Your task to perform on an android device: delete location history Image 0: 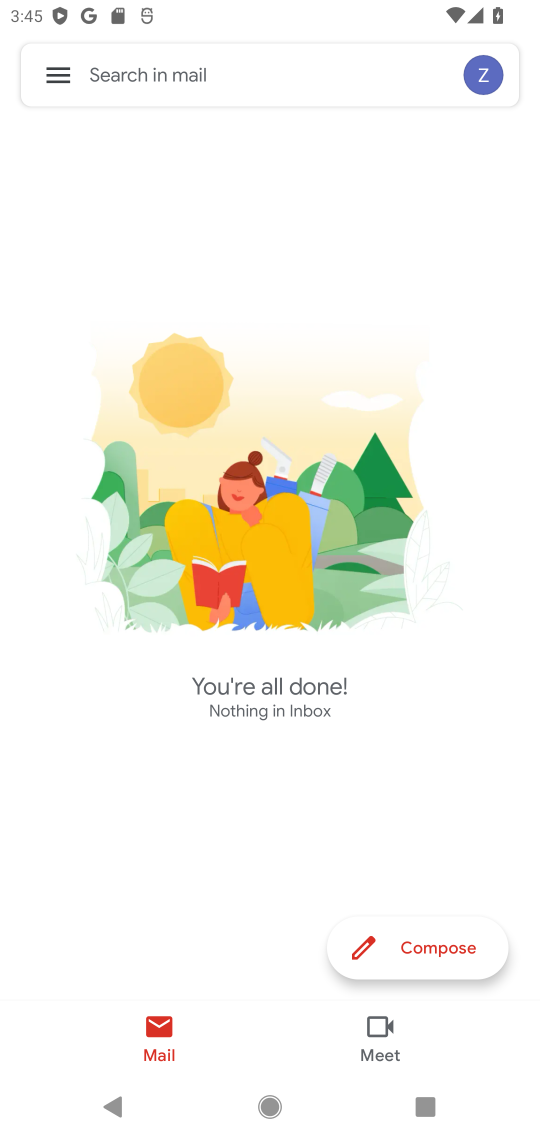
Step 0: drag from (235, 931) to (369, 465)
Your task to perform on an android device: delete location history Image 1: 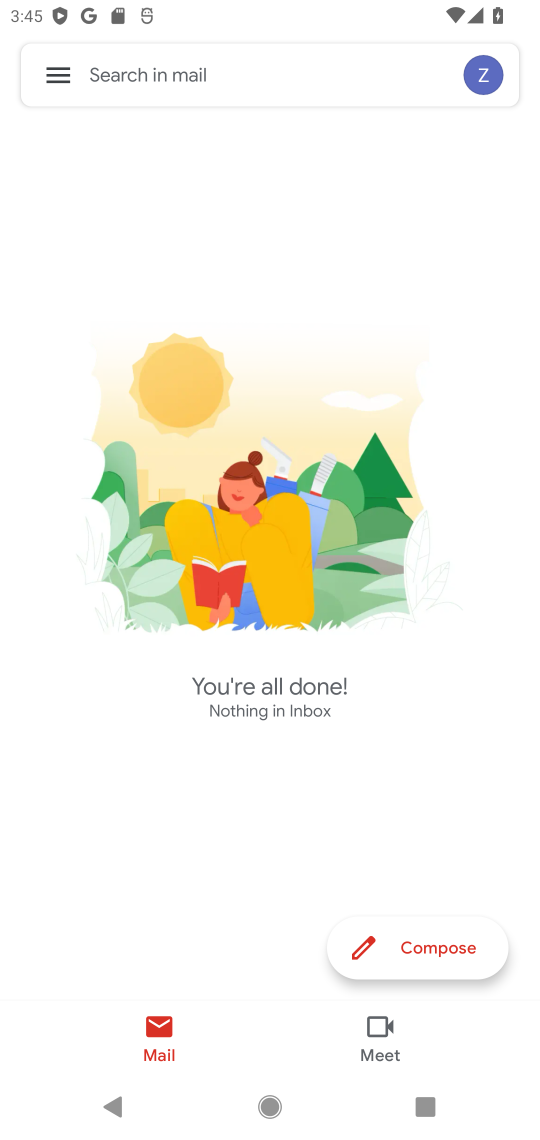
Step 1: press home button
Your task to perform on an android device: delete location history Image 2: 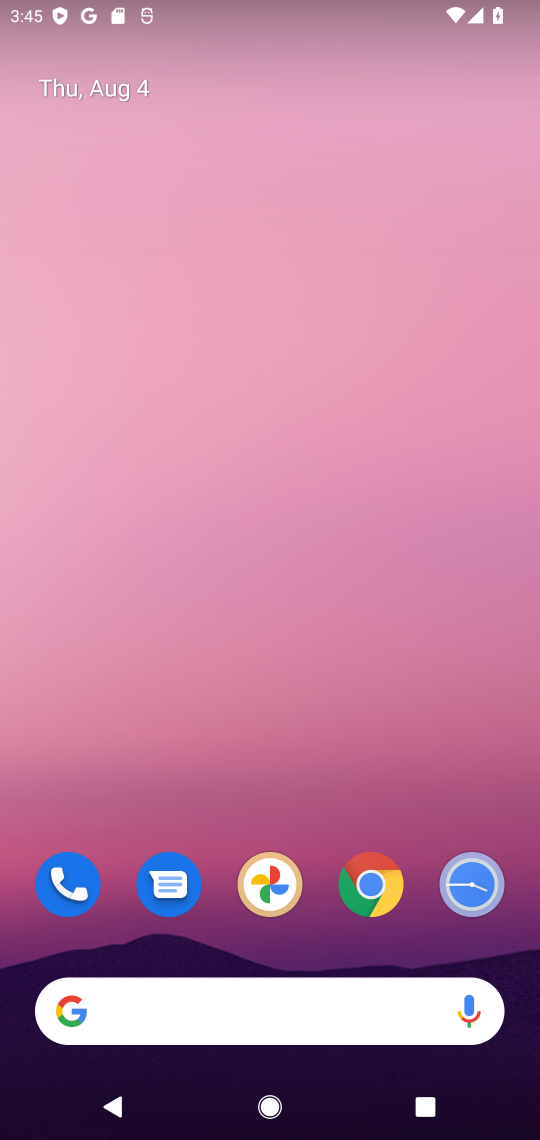
Step 2: drag from (217, 882) to (411, 449)
Your task to perform on an android device: delete location history Image 3: 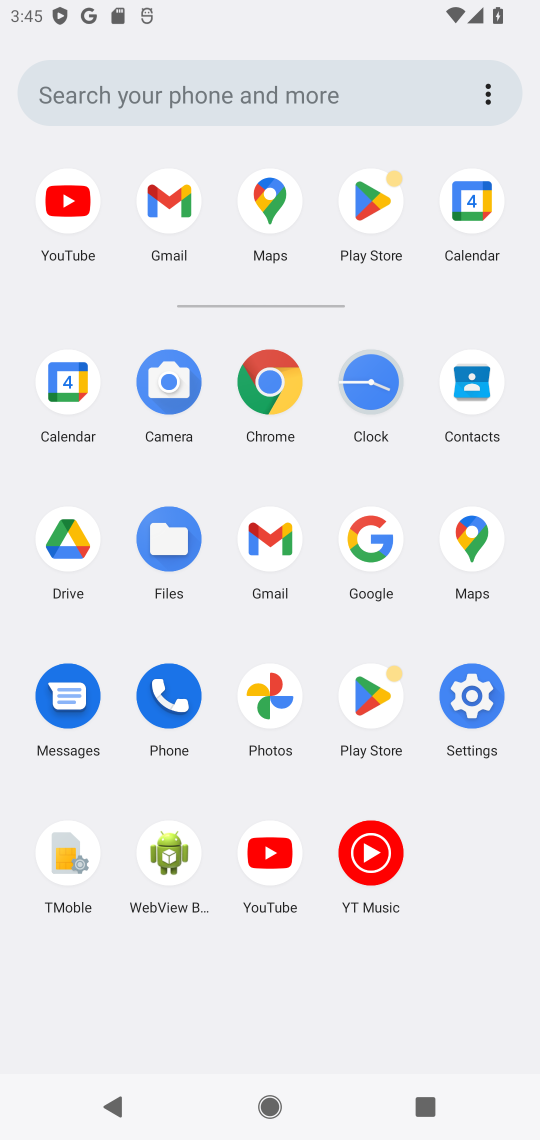
Step 3: click (474, 694)
Your task to perform on an android device: delete location history Image 4: 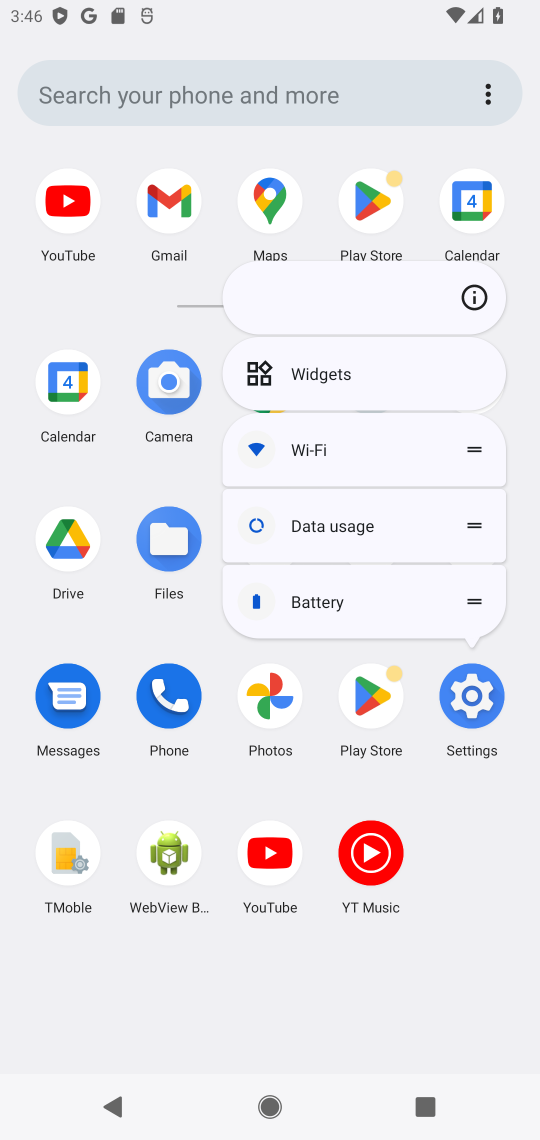
Step 4: click (459, 298)
Your task to perform on an android device: delete location history Image 5: 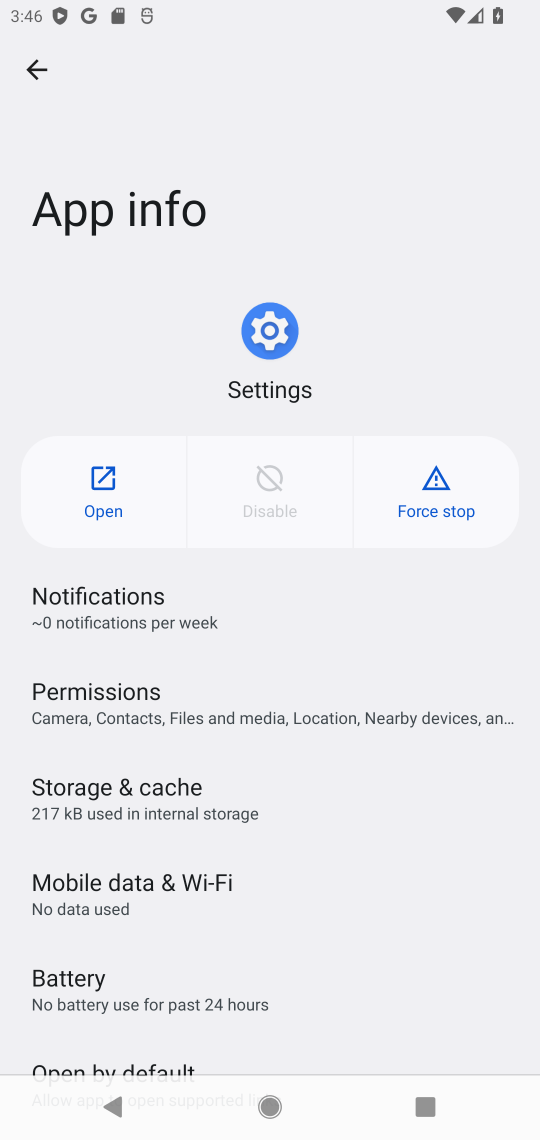
Step 5: click (109, 499)
Your task to perform on an android device: delete location history Image 6: 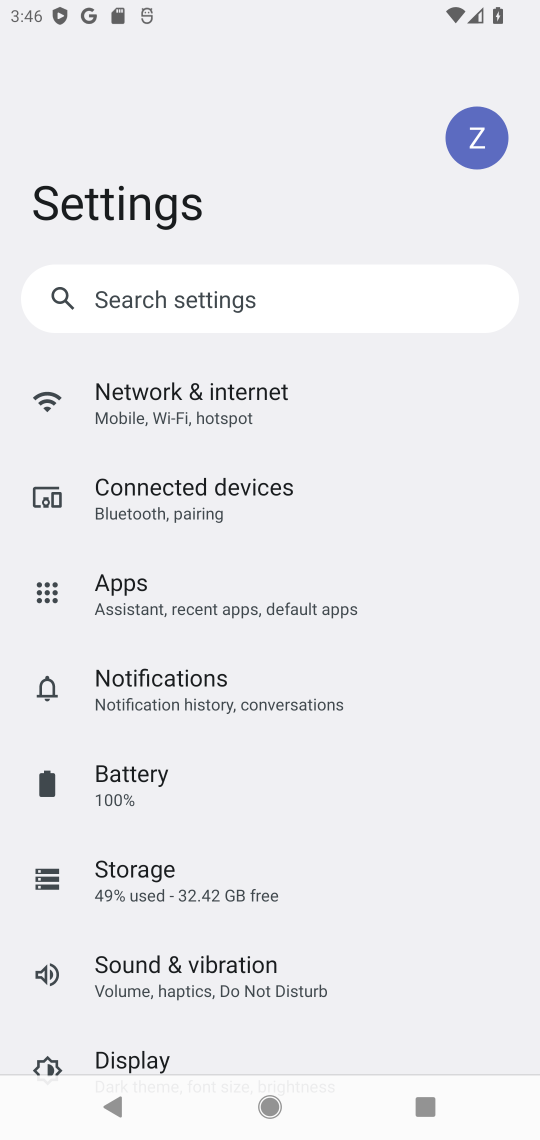
Step 6: drag from (229, 856) to (466, 37)
Your task to perform on an android device: delete location history Image 7: 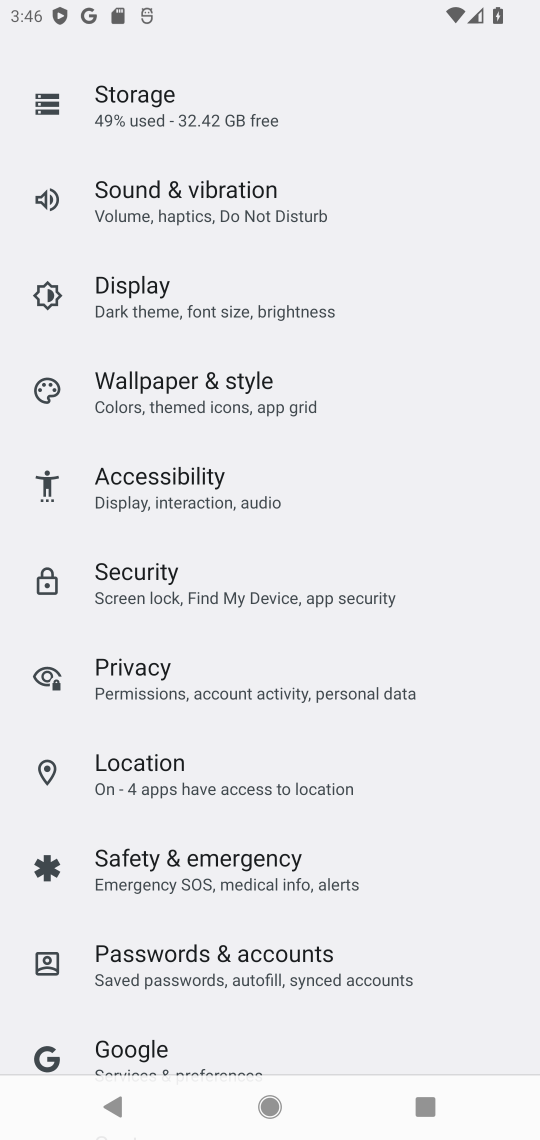
Step 7: click (191, 763)
Your task to perform on an android device: delete location history Image 8: 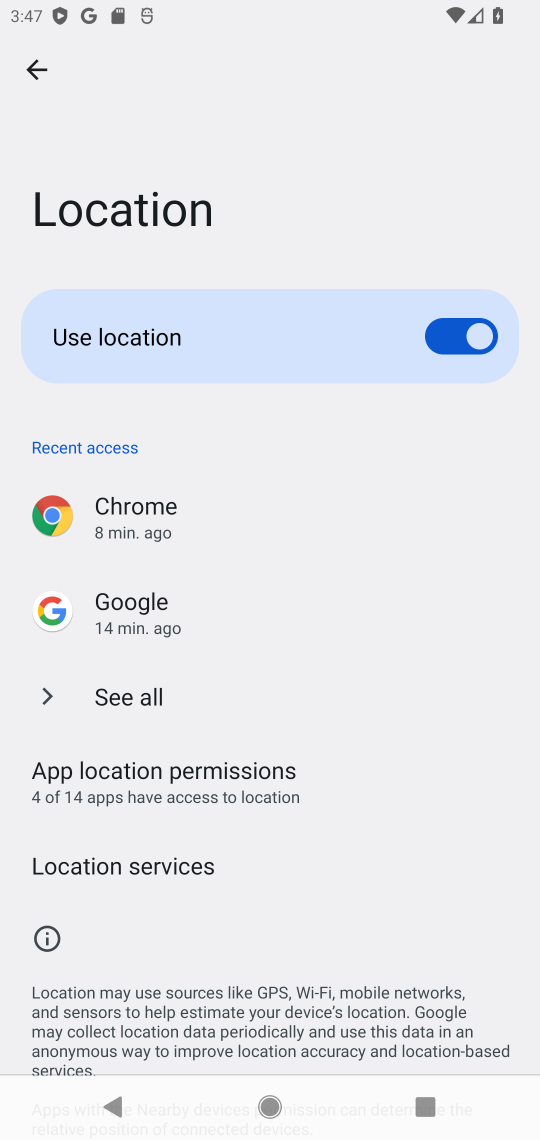
Step 8: drag from (253, 924) to (292, 481)
Your task to perform on an android device: delete location history Image 9: 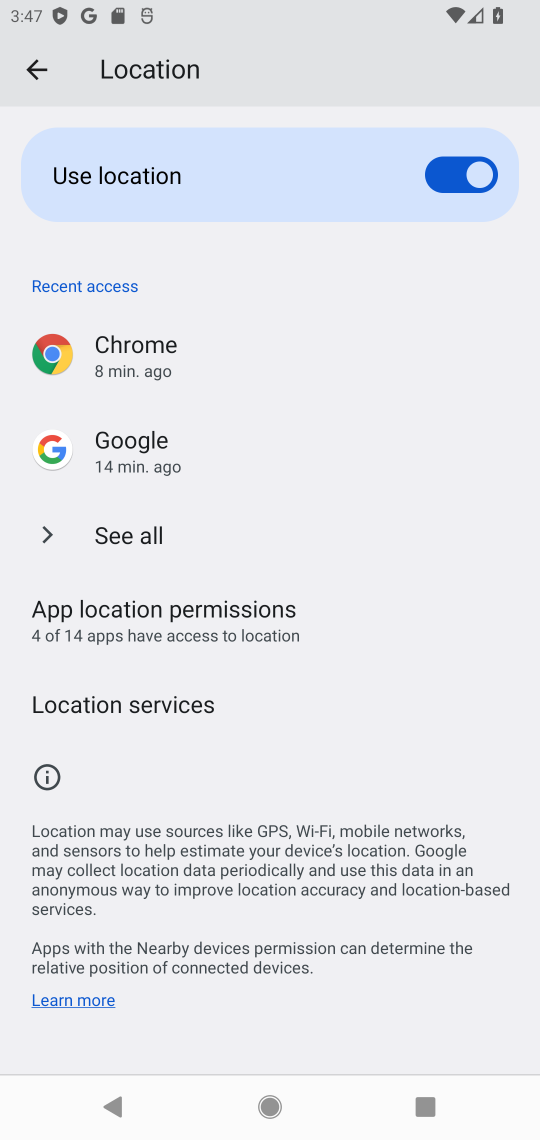
Step 9: click (149, 704)
Your task to perform on an android device: delete location history Image 10: 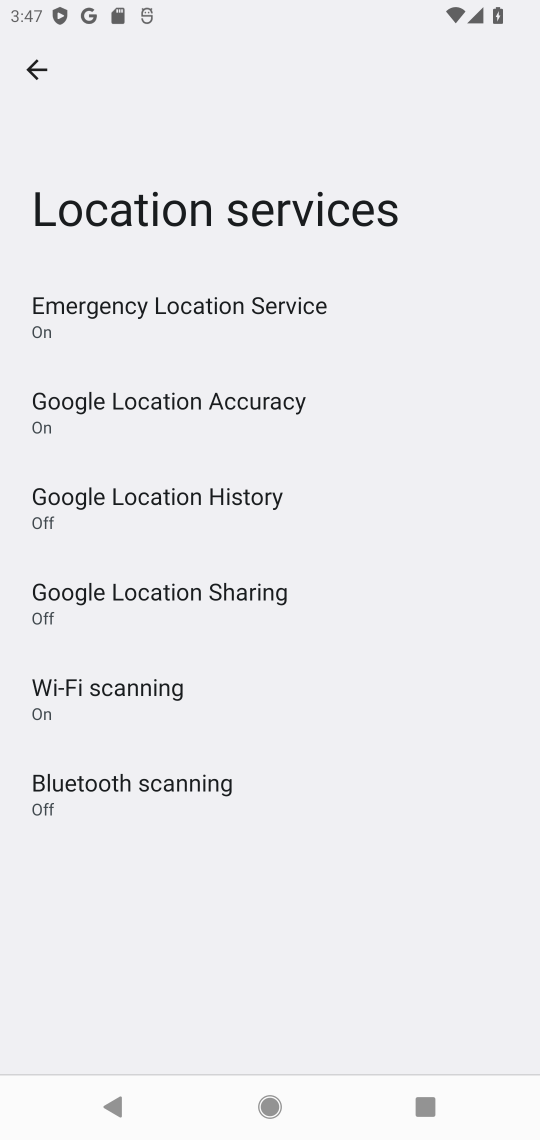
Step 10: click (277, 505)
Your task to perform on an android device: delete location history Image 11: 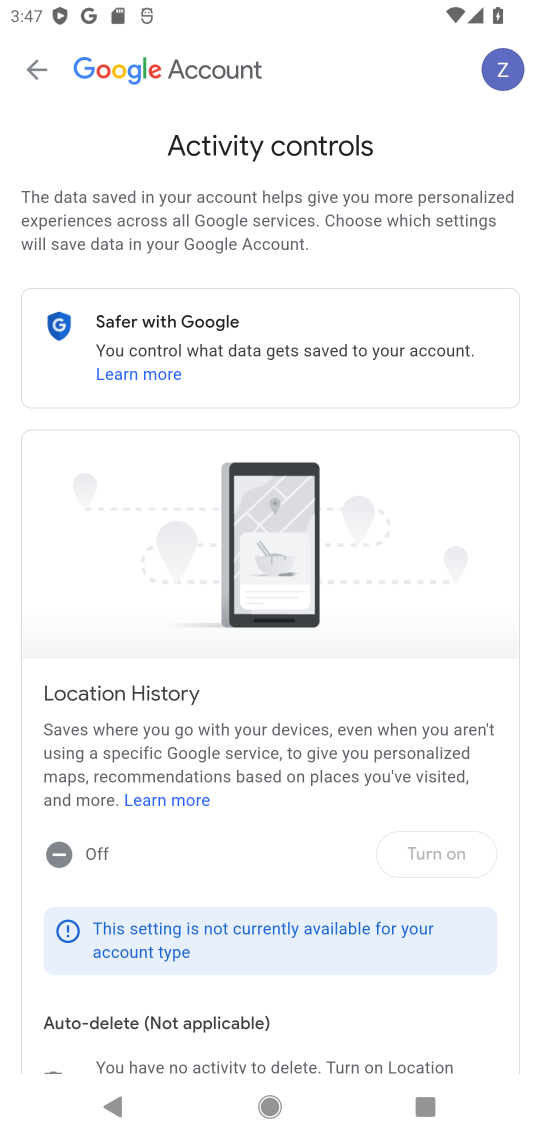
Step 11: click (490, 823)
Your task to perform on an android device: delete location history Image 12: 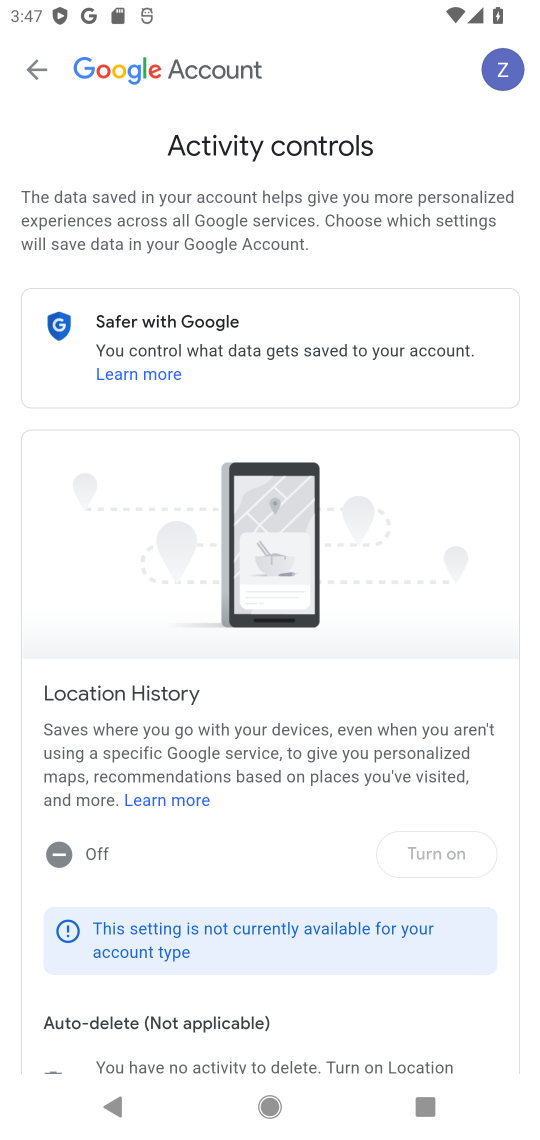
Step 12: drag from (308, 773) to (413, 390)
Your task to perform on an android device: delete location history Image 13: 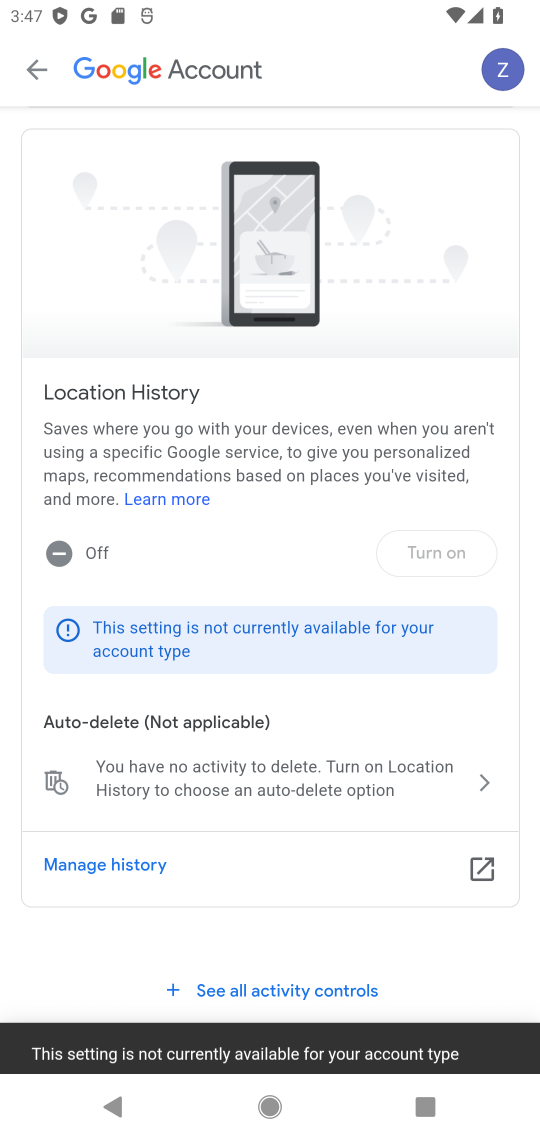
Step 13: click (49, 808)
Your task to perform on an android device: delete location history Image 14: 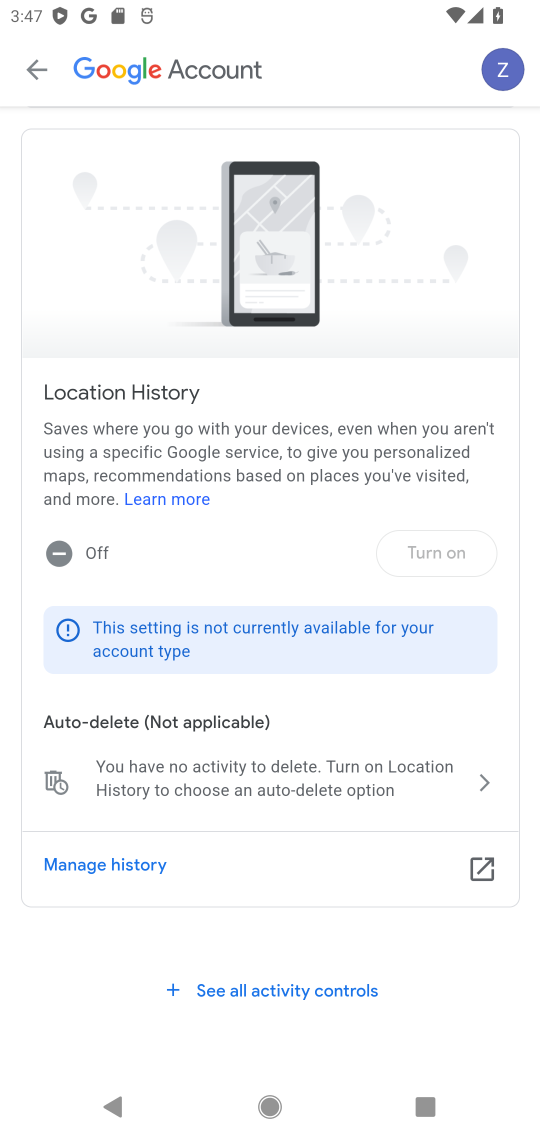
Step 14: click (58, 777)
Your task to perform on an android device: delete location history Image 15: 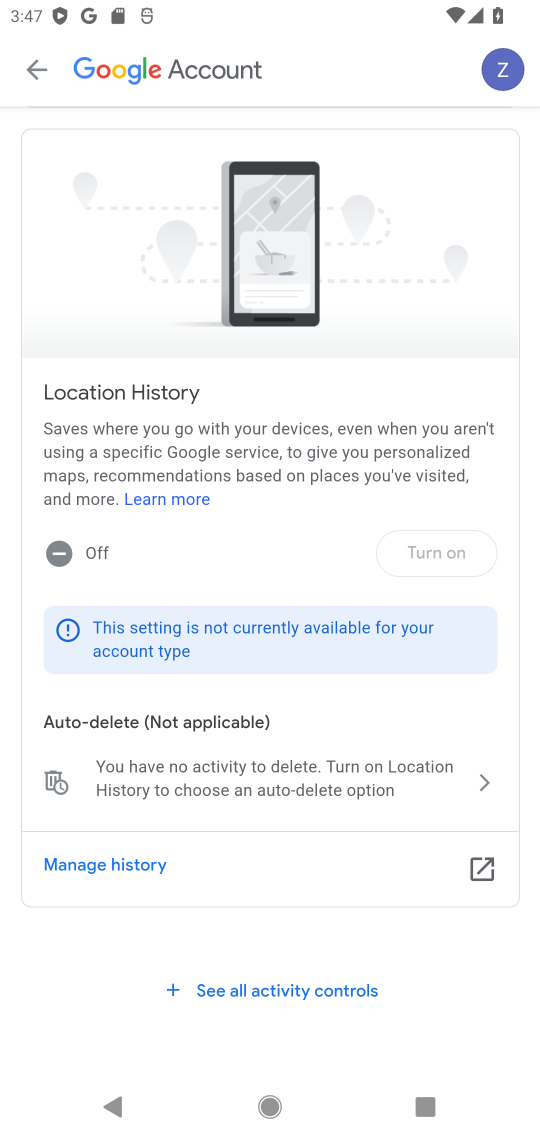
Step 15: click (58, 777)
Your task to perform on an android device: delete location history Image 16: 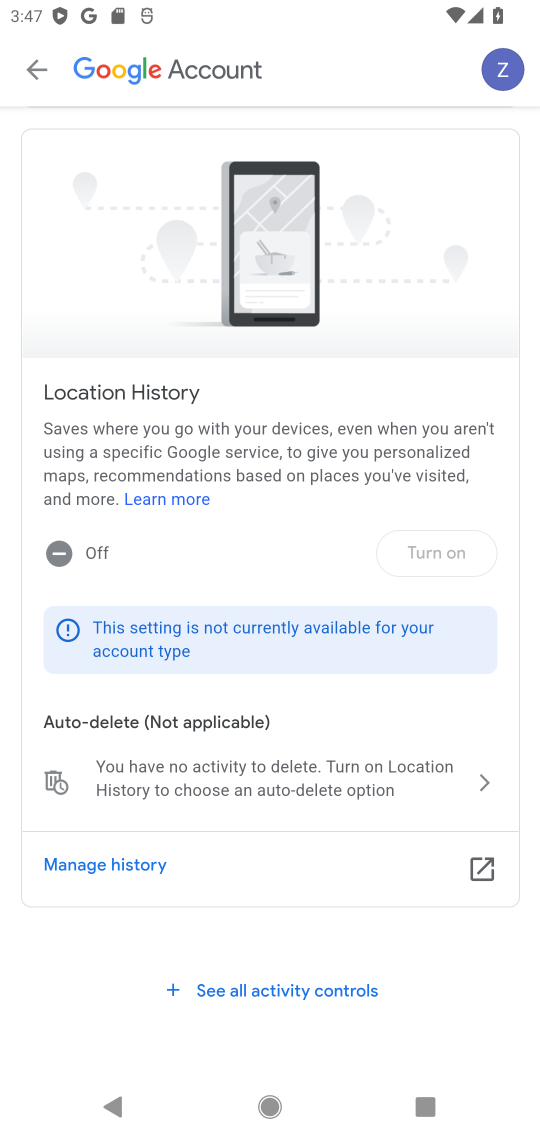
Step 16: click (232, 779)
Your task to perform on an android device: delete location history Image 17: 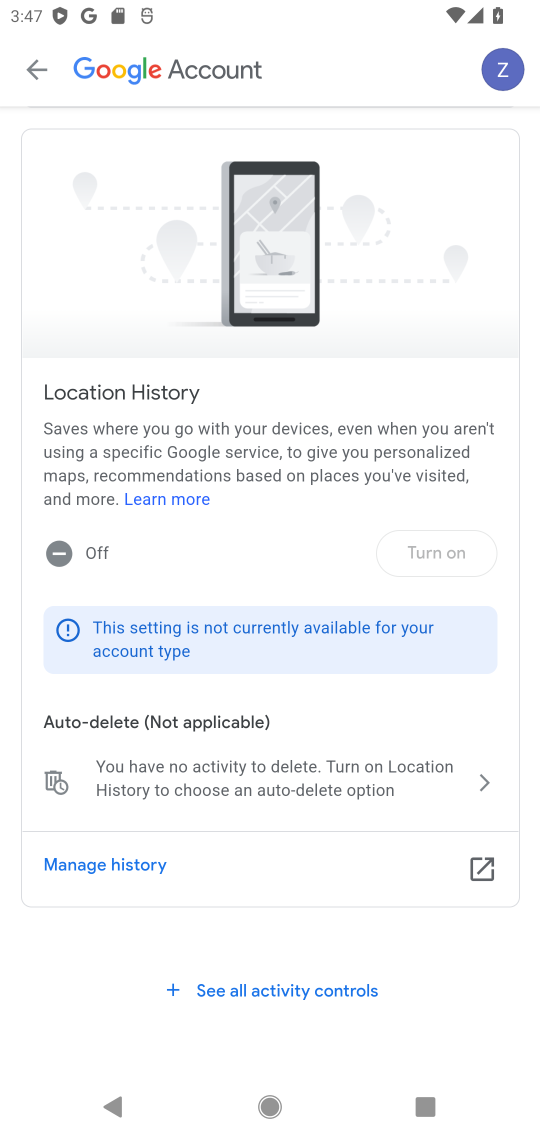
Step 17: click (148, 731)
Your task to perform on an android device: delete location history Image 18: 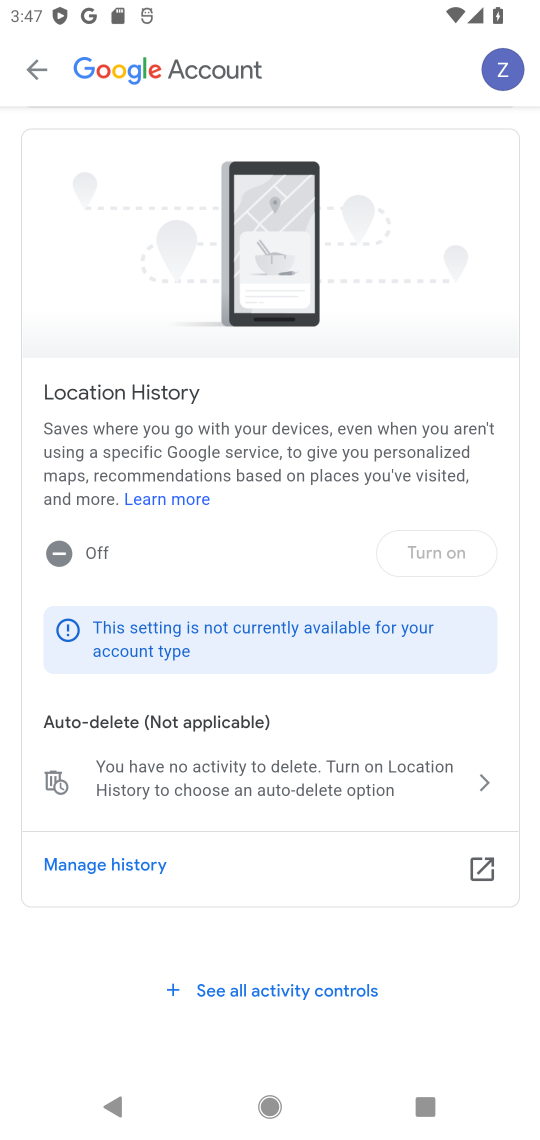
Step 18: task complete